Your task to perform on an android device: Open Chrome and go to settings Image 0: 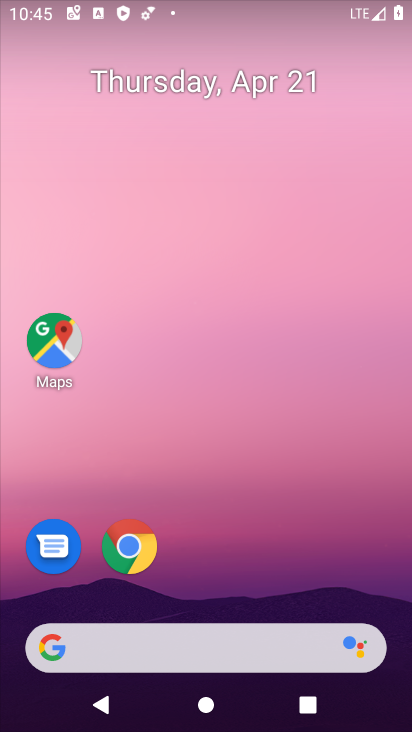
Step 0: click (124, 546)
Your task to perform on an android device: Open Chrome and go to settings Image 1: 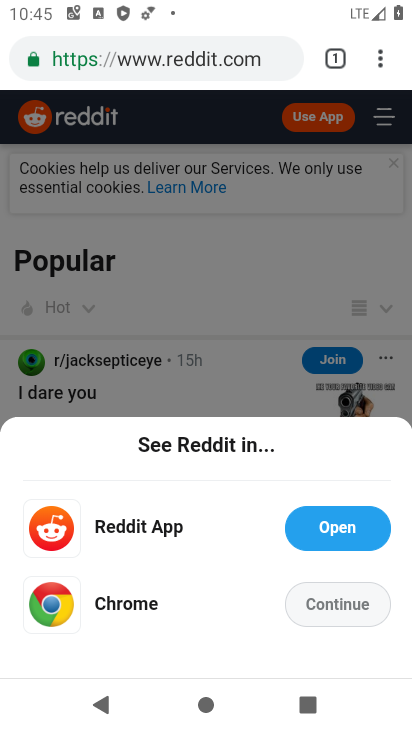
Step 1: click (379, 63)
Your task to perform on an android device: Open Chrome and go to settings Image 2: 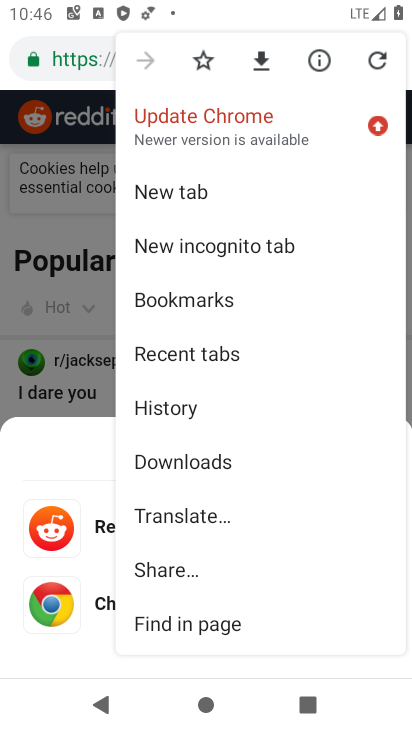
Step 2: drag from (259, 565) to (295, 242)
Your task to perform on an android device: Open Chrome and go to settings Image 3: 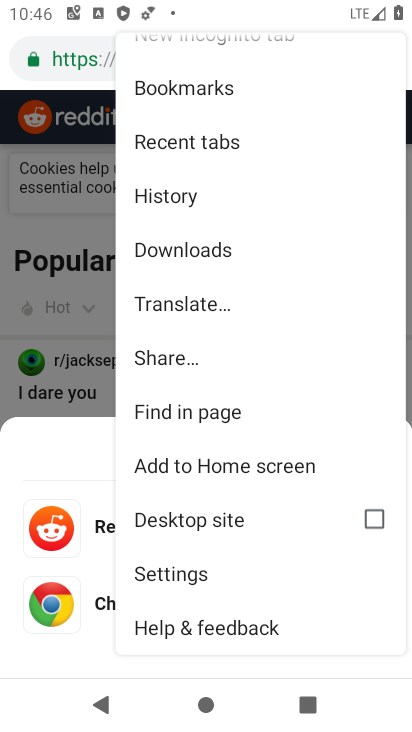
Step 3: click (176, 566)
Your task to perform on an android device: Open Chrome and go to settings Image 4: 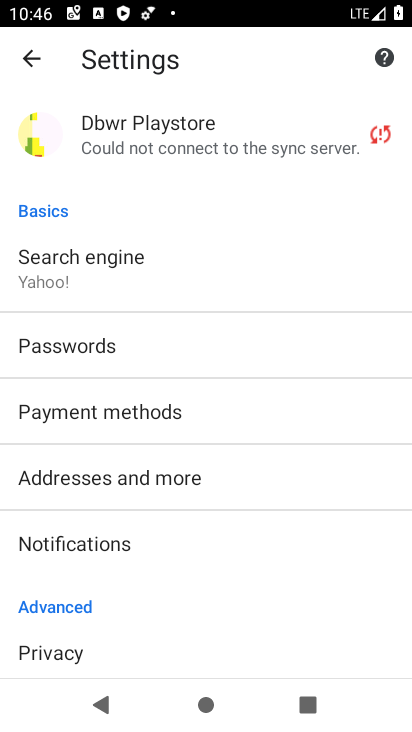
Step 4: task complete